Your task to perform on an android device: Search for seafood restaurants on Google Maps Image 0: 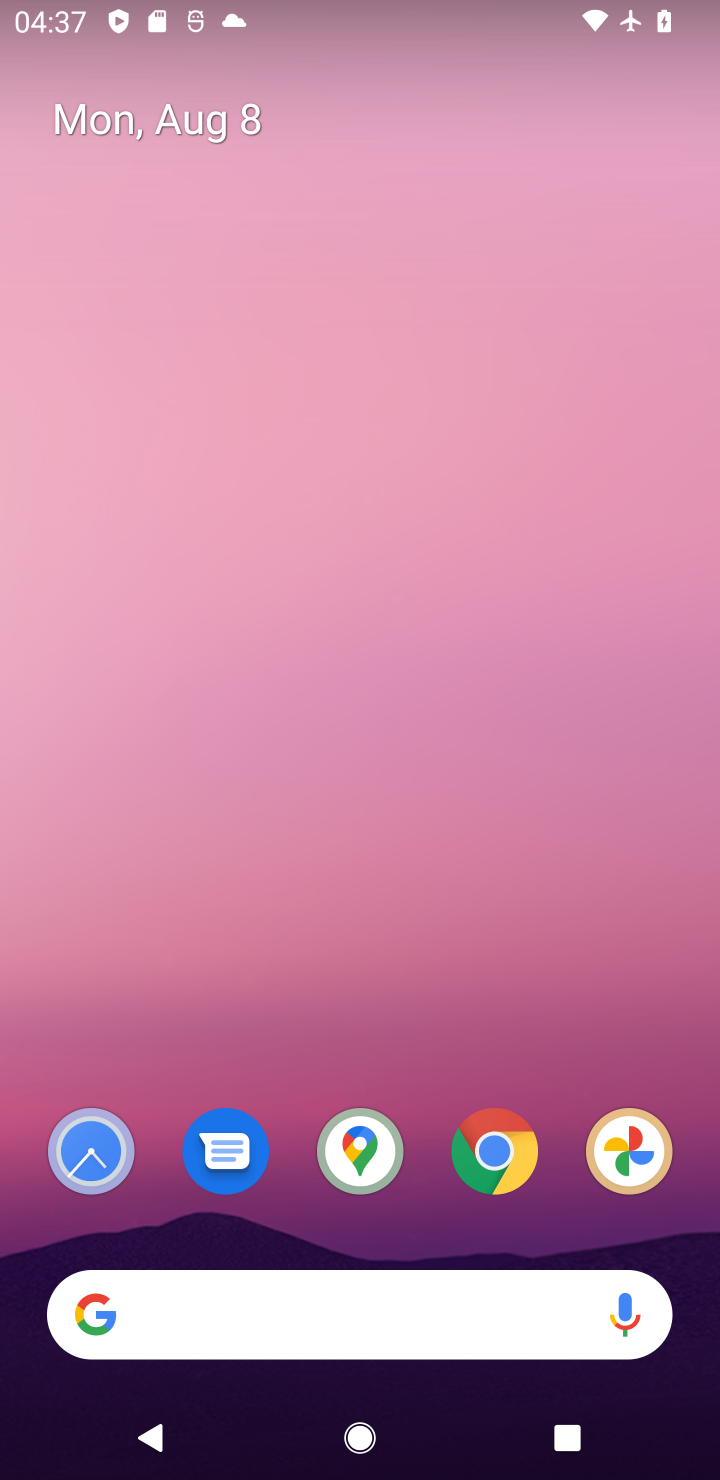
Step 0: click (346, 1178)
Your task to perform on an android device: Search for seafood restaurants on Google Maps Image 1: 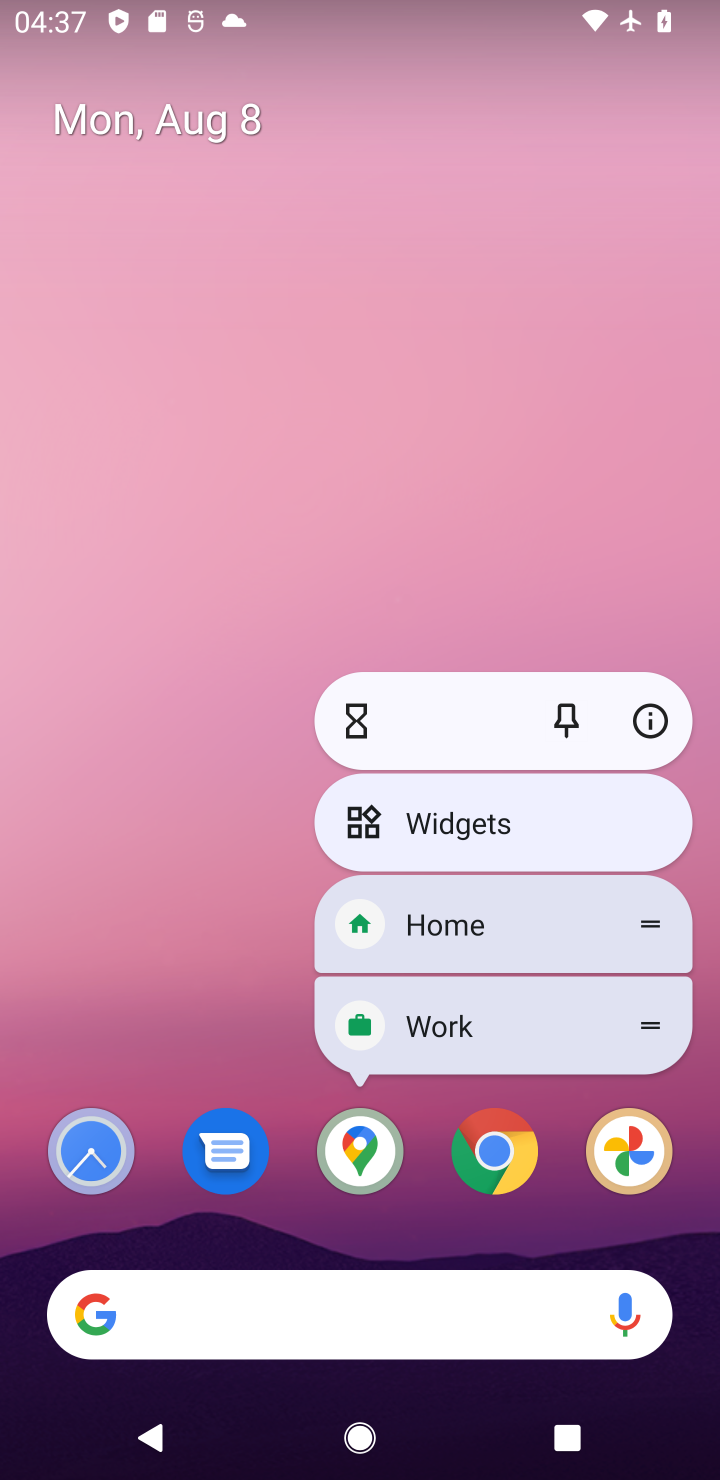
Step 1: click (348, 1176)
Your task to perform on an android device: Search for seafood restaurants on Google Maps Image 2: 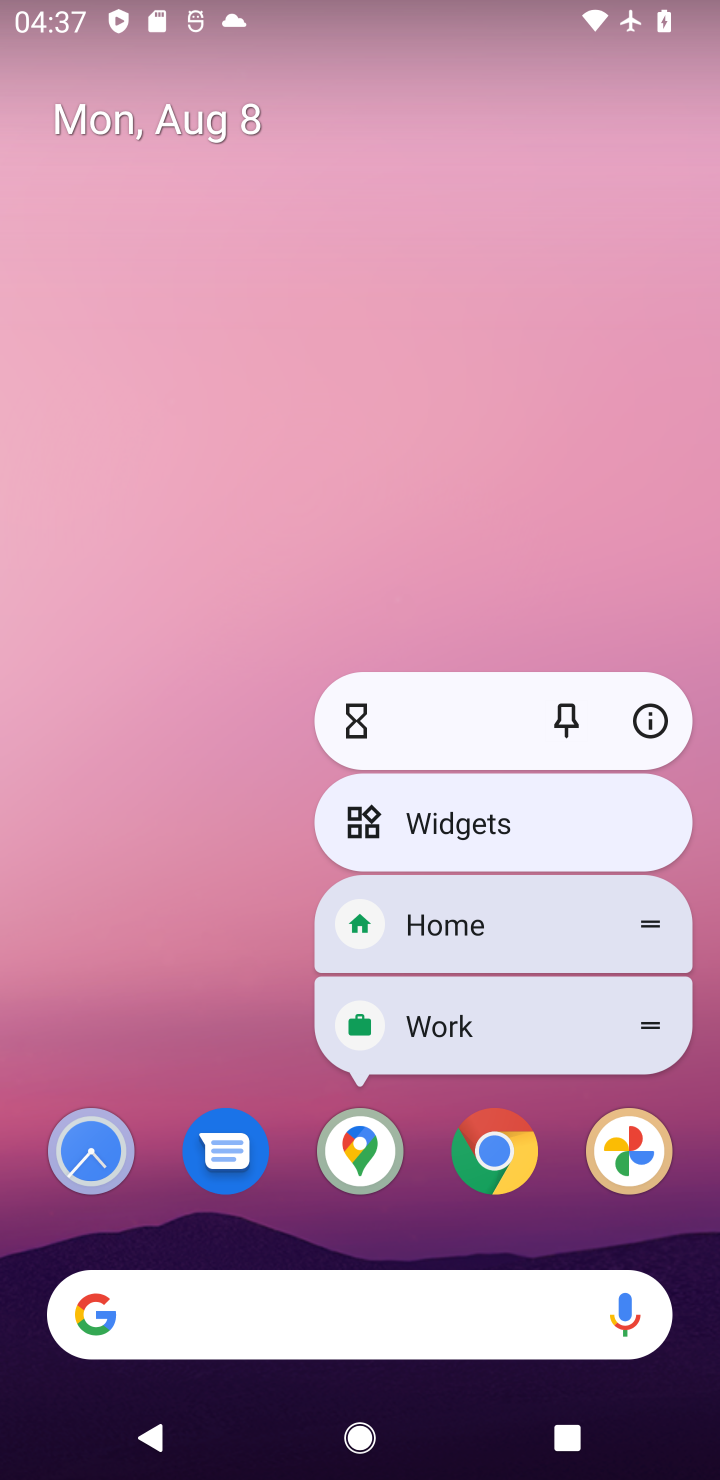
Step 2: click (348, 1176)
Your task to perform on an android device: Search for seafood restaurants on Google Maps Image 3: 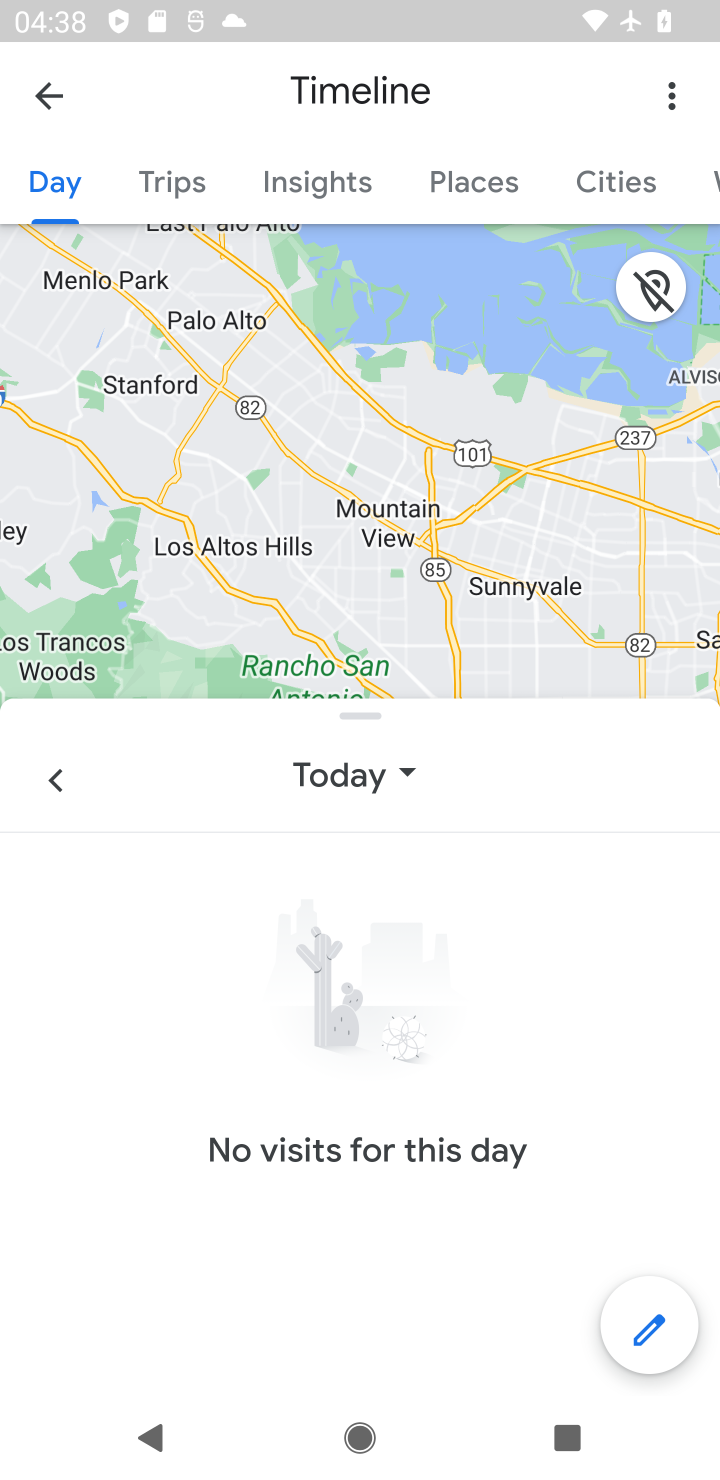
Step 3: click (52, 69)
Your task to perform on an android device: Search for seafood restaurants on Google Maps Image 4: 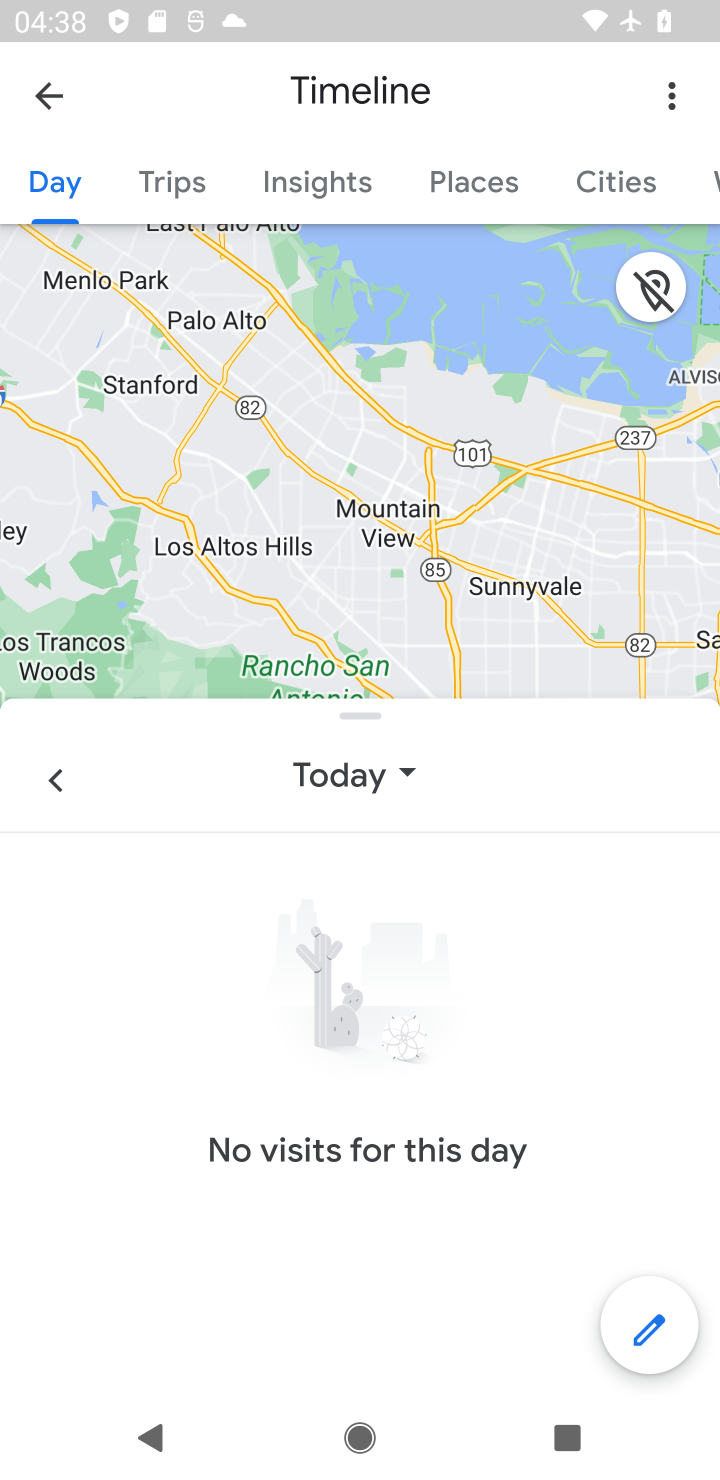
Step 4: click (50, 86)
Your task to perform on an android device: Search for seafood restaurants on Google Maps Image 5: 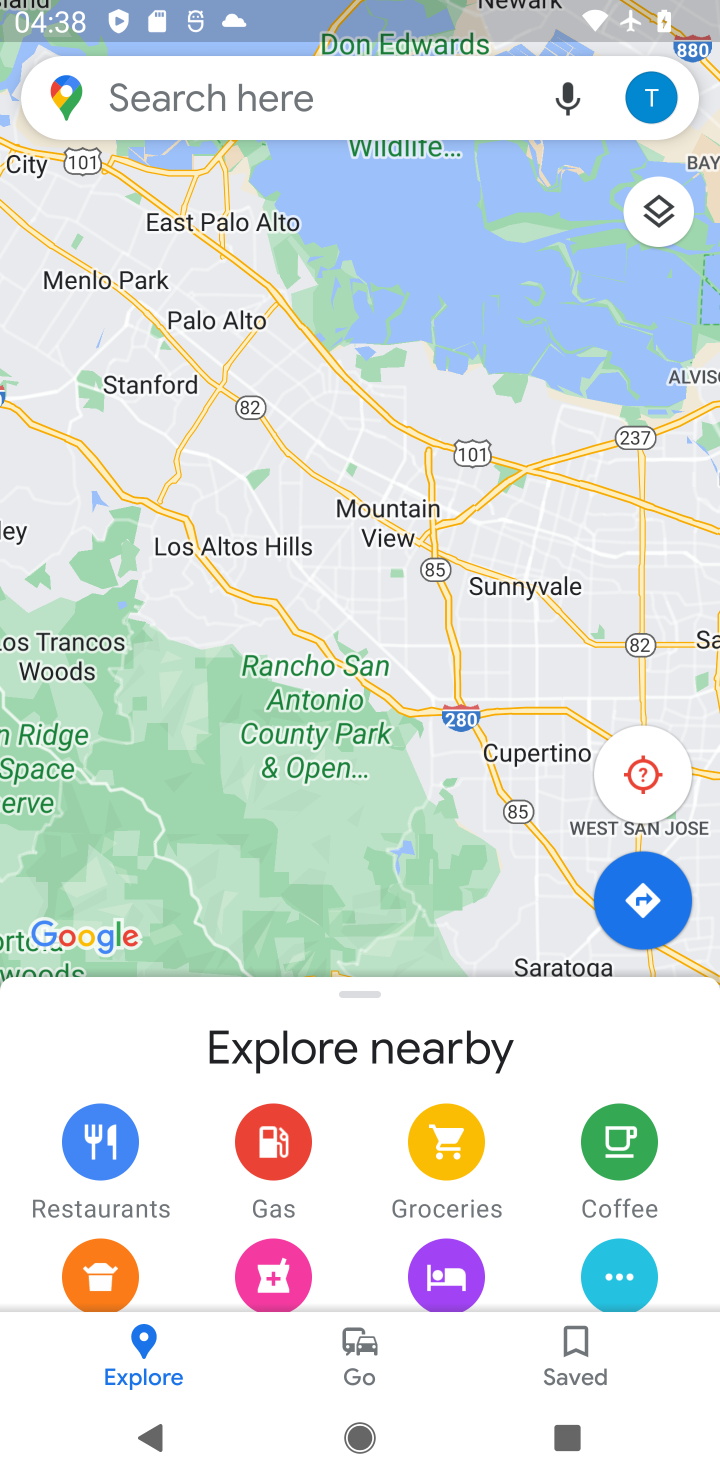
Step 5: click (252, 90)
Your task to perform on an android device: Search for seafood restaurants on Google Maps Image 6: 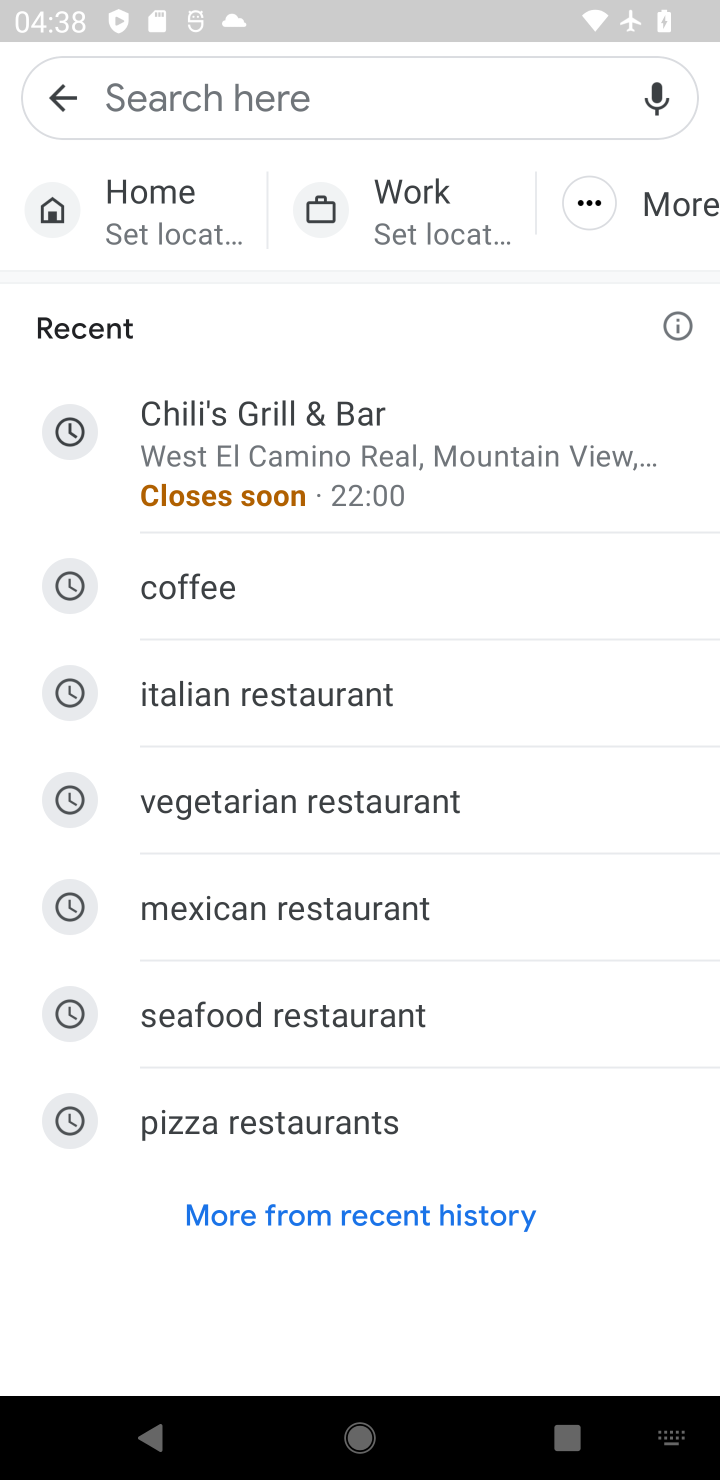
Step 6: click (342, 1003)
Your task to perform on an android device: Search for seafood restaurants on Google Maps Image 7: 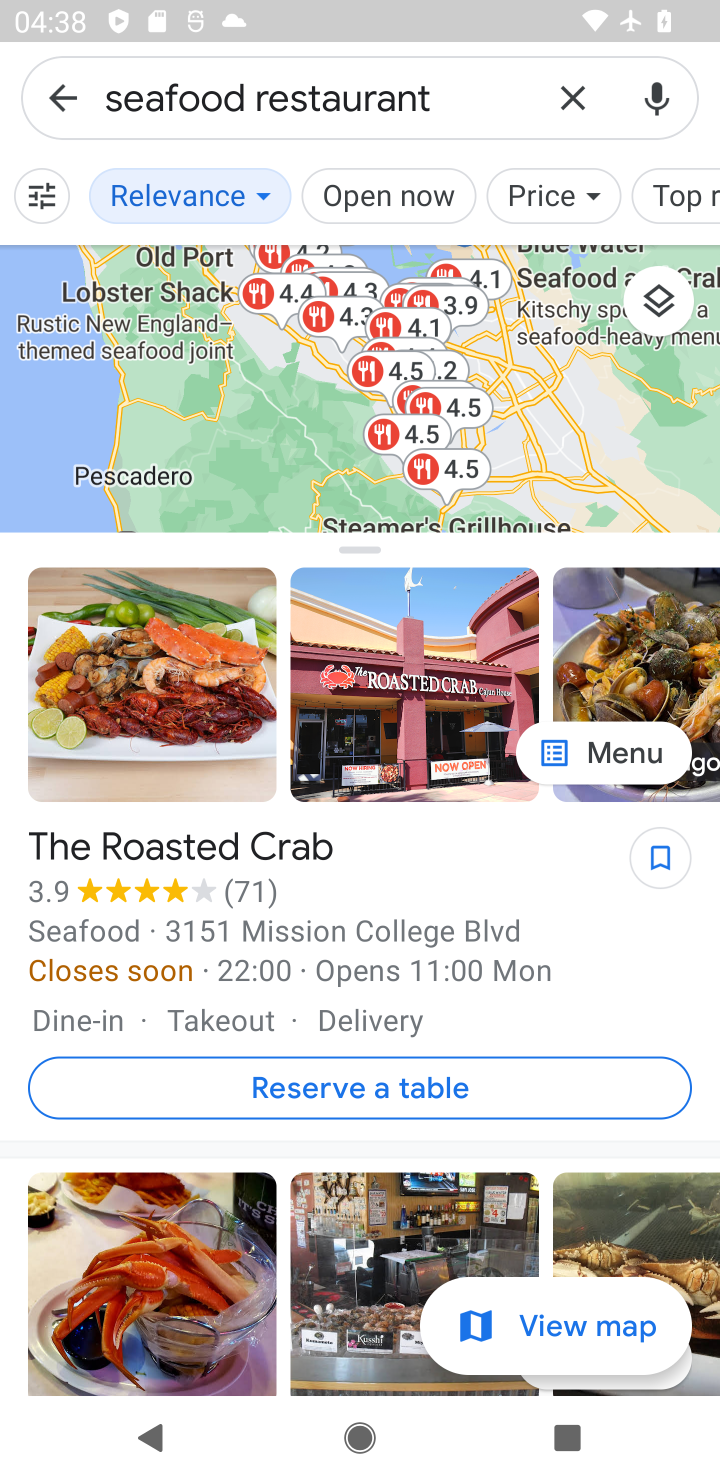
Step 7: task complete